Your task to perform on an android device: Search for seafood restaurants on Google Maps Image 0: 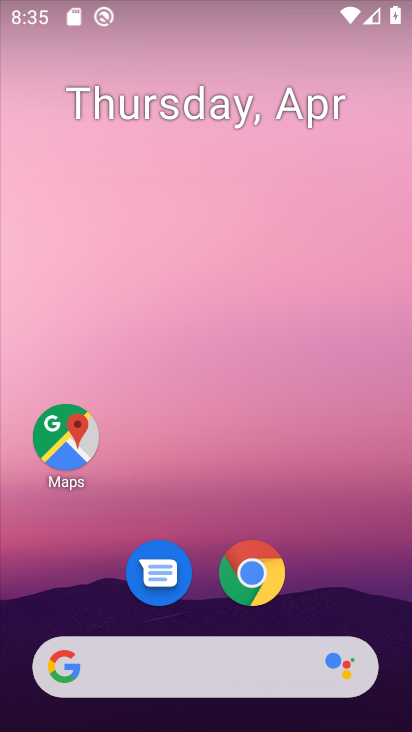
Step 0: click (67, 441)
Your task to perform on an android device: Search for seafood restaurants on Google Maps Image 1: 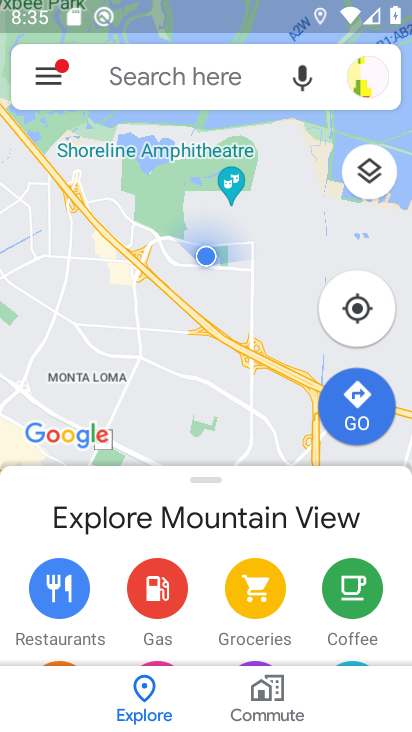
Step 1: click (175, 74)
Your task to perform on an android device: Search for seafood restaurants on Google Maps Image 2: 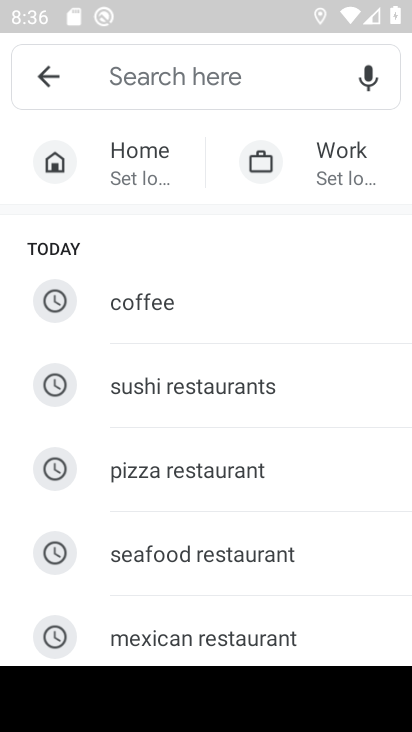
Step 2: type "seafood restaurants"
Your task to perform on an android device: Search for seafood restaurants on Google Maps Image 3: 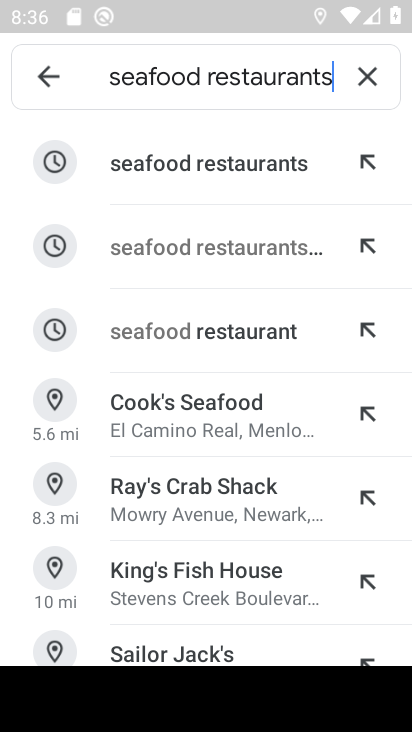
Step 3: click (187, 157)
Your task to perform on an android device: Search for seafood restaurants on Google Maps Image 4: 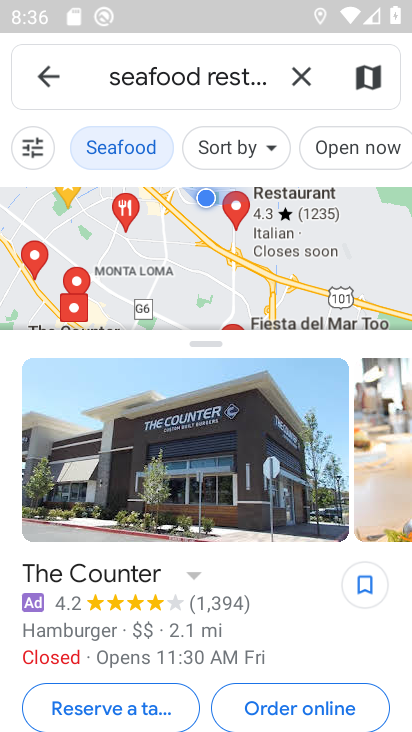
Step 4: task complete